Your task to perform on an android device: set an alarm Image 0: 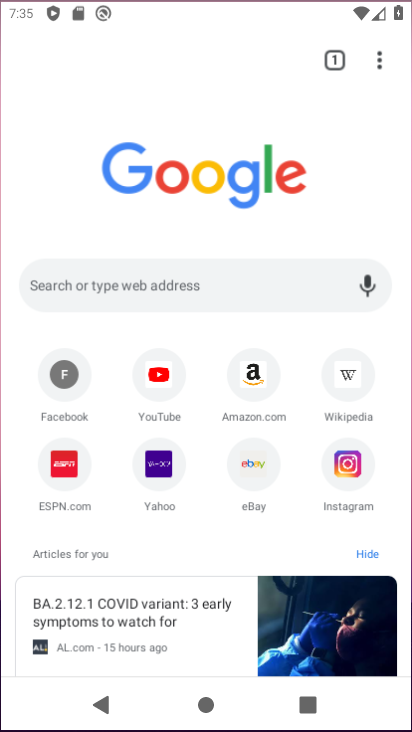
Step 0: drag from (286, 580) to (321, 278)
Your task to perform on an android device: set an alarm Image 1: 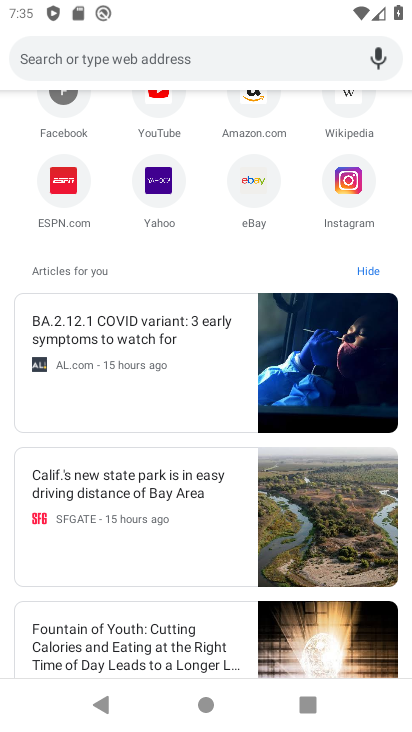
Step 1: press home button
Your task to perform on an android device: set an alarm Image 2: 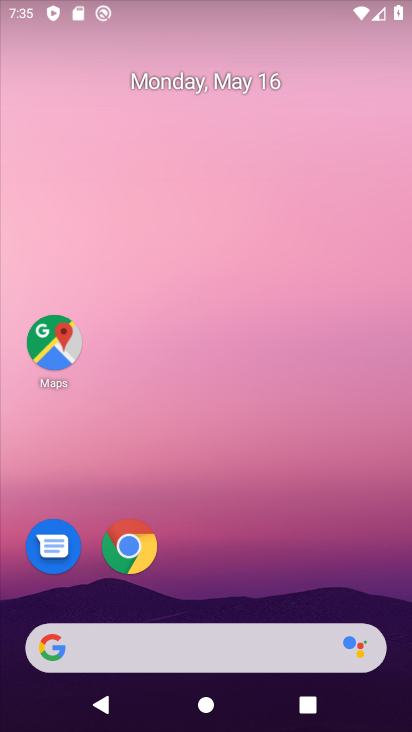
Step 2: drag from (270, 542) to (321, 33)
Your task to perform on an android device: set an alarm Image 3: 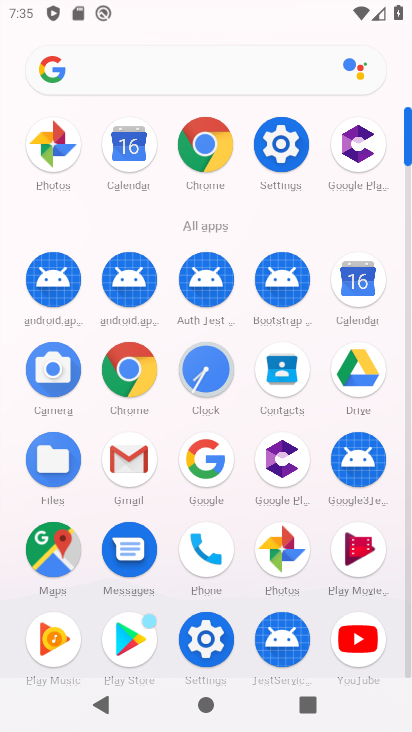
Step 3: click (205, 364)
Your task to perform on an android device: set an alarm Image 4: 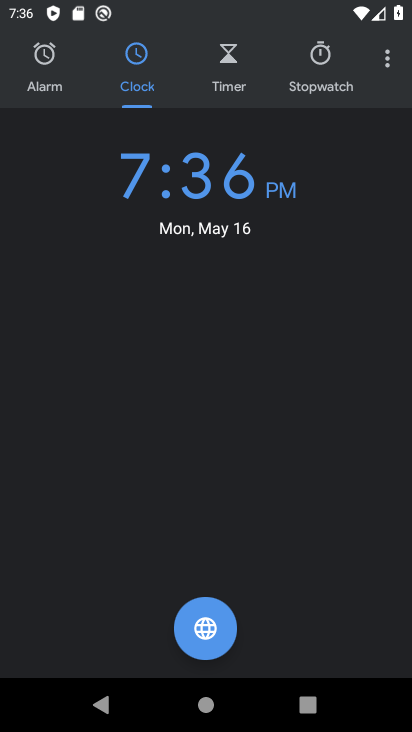
Step 4: click (64, 56)
Your task to perform on an android device: set an alarm Image 5: 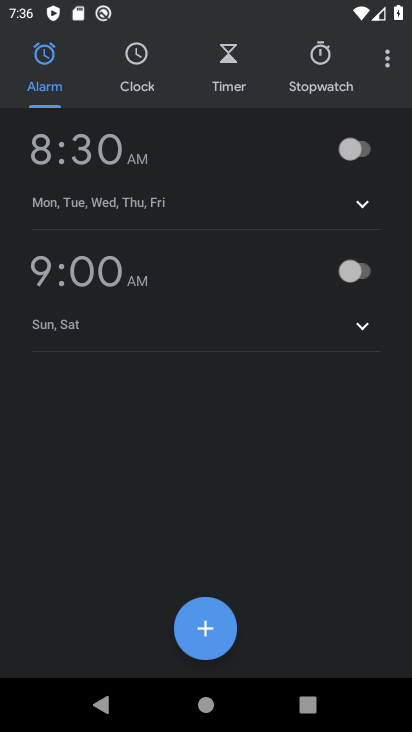
Step 5: click (352, 143)
Your task to perform on an android device: set an alarm Image 6: 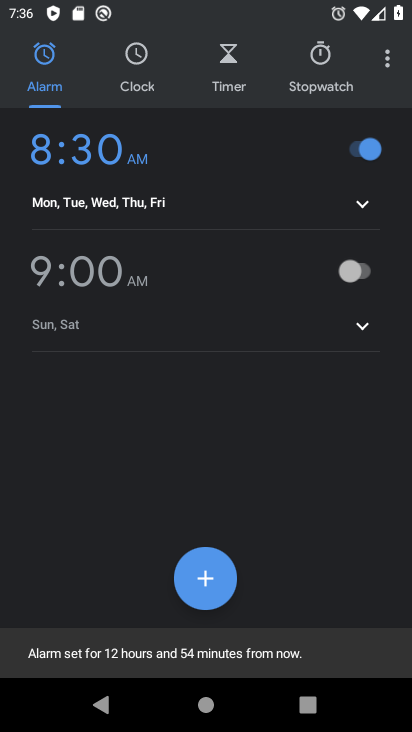
Step 6: task complete